Your task to perform on an android device: turn on improve location accuracy Image 0: 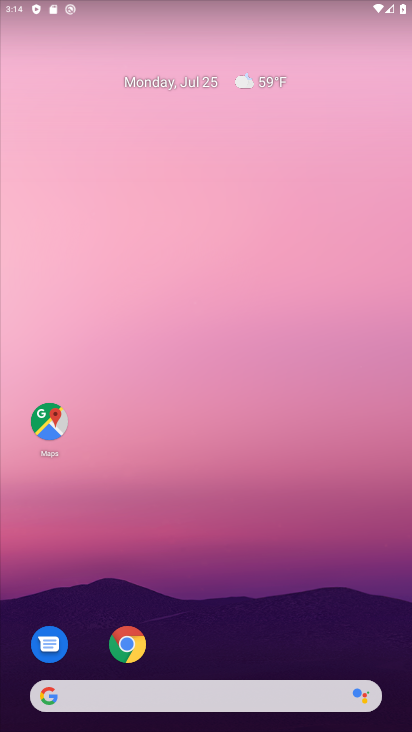
Step 0: drag from (199, 697) to (181, 203)
Your task to perform on an android device: turn on improve location accuracy Image 1: 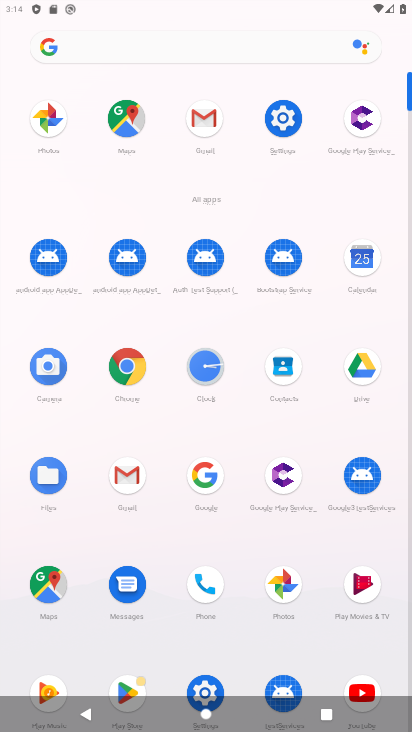
Step 1: click (284, 120)
Your task to perform on an android device: turn on improve location accuracy Image 2: 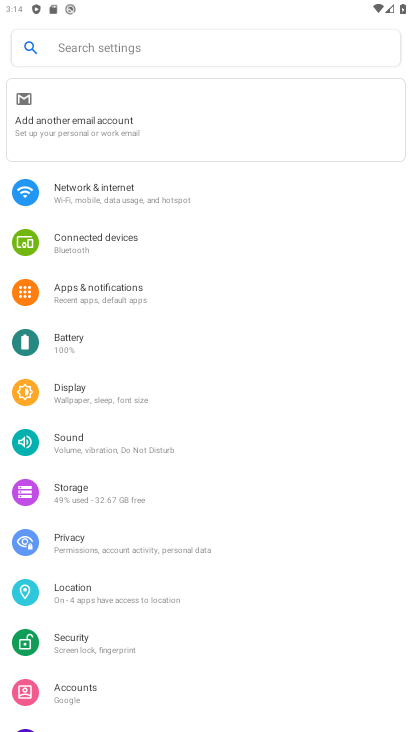
Step 2: click (69, 589)
Your task to perform on an android device: turn on improve location accuracy Image 3: 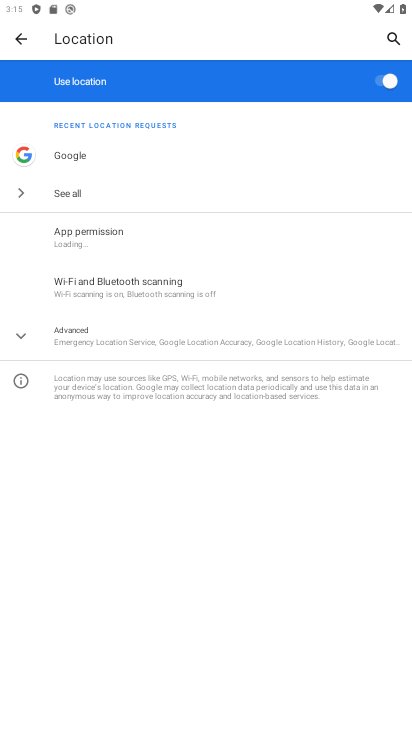
Step 3: click (62, 335)
Your task to perform on an android device: turn on improve location accuracy Image 4: 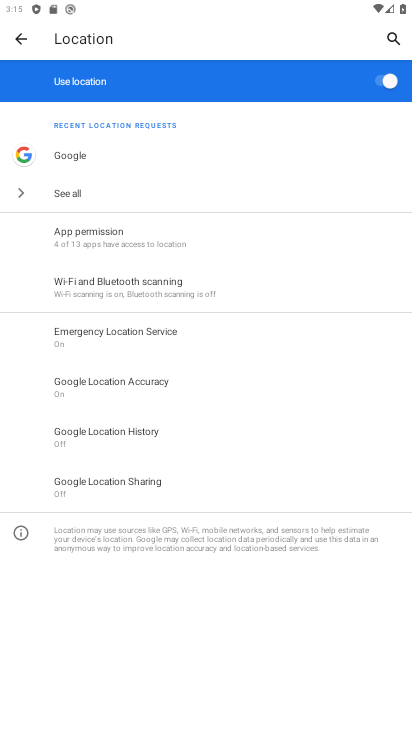
Step 4: click (120, 381)
Your task to perform on an android device: turn on improve location accuracy Image 5: 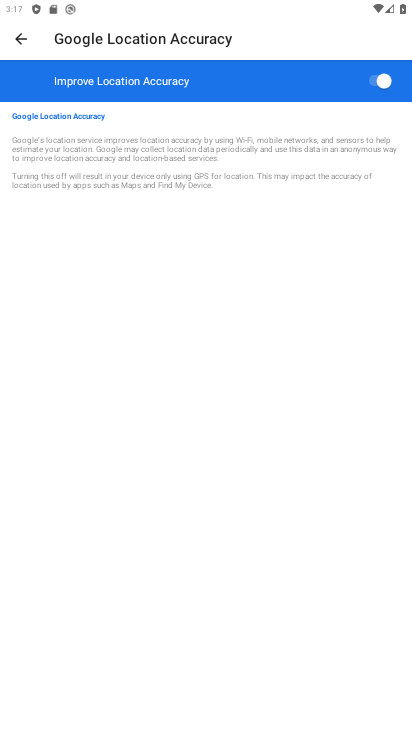
Step 5: task complete